Your task to perform on an android device: Check the news Image 0: 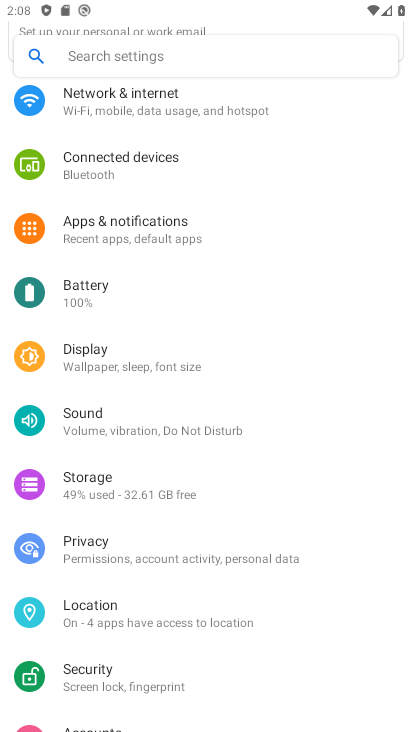
Step 0: press home button
Your task to perform on an android device: Check the news Image 1: 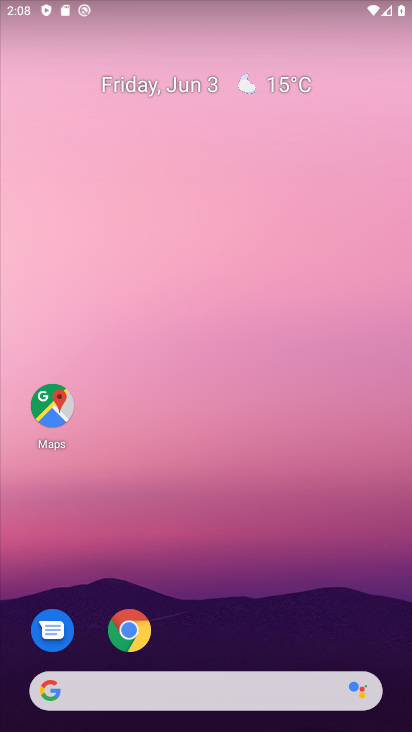
Step 1: drag from (277, 639) to (311, 144)
Your task to perform on an android device: Check the news Image 2: 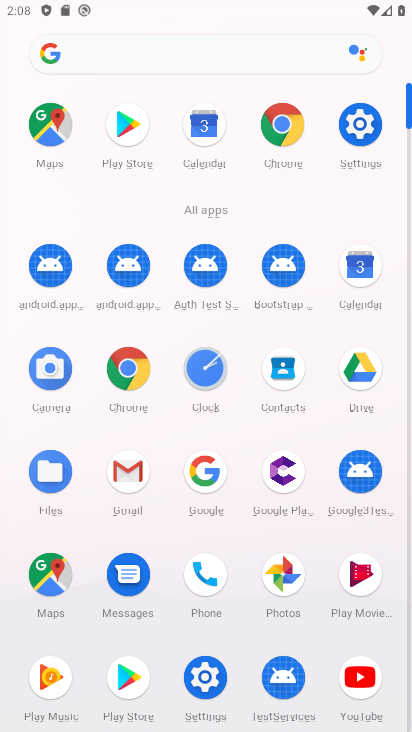
Step 2: click (272, 117)
Your task to perform on an android device: Check the news Image 3: 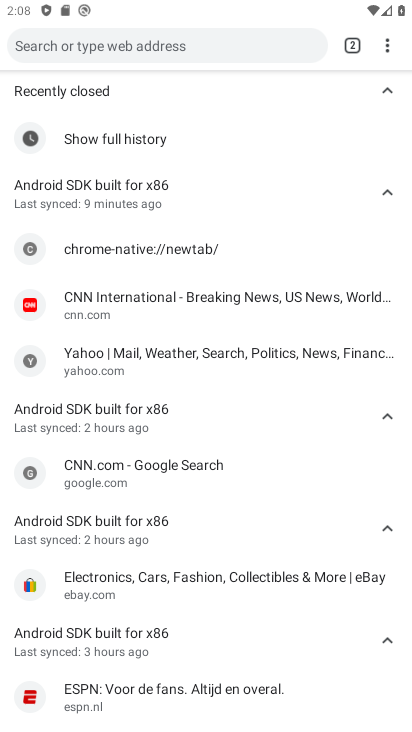
Step 3: click (72, 46)
Your task to perform on an android device: Check the news Image 4: 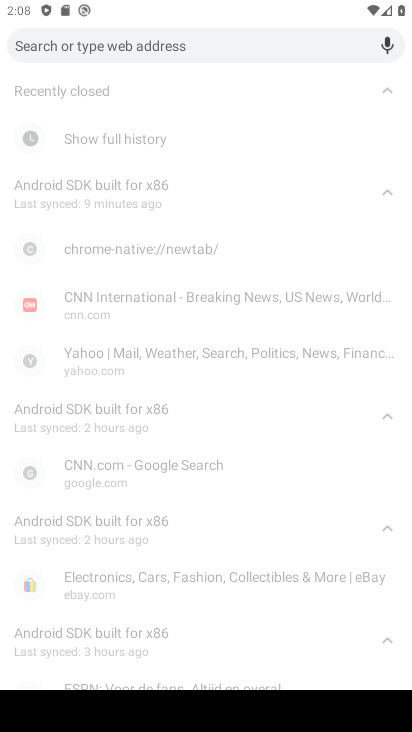
Step 4: type "news"
Your task to perform on an android device: Check the news Image 5: 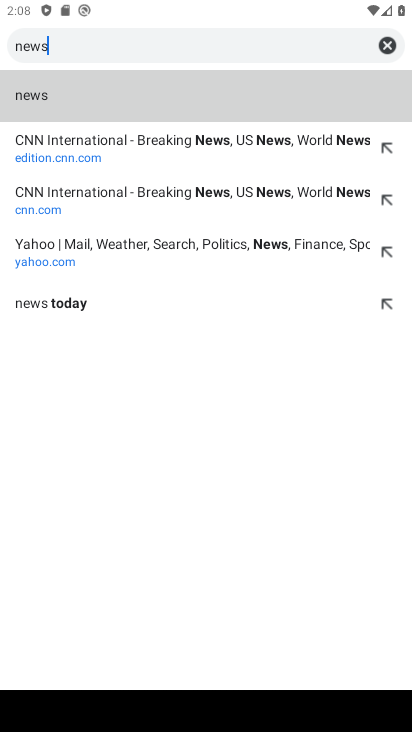
Step 5: type ""
Your task to perform on an android device: Check the news Image 6: 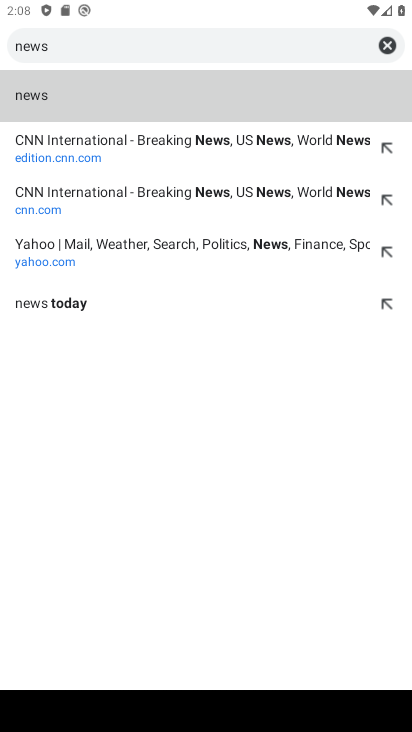
Step 6: click (331, 101)
Your task to perform on an android device: Check the news Image 7: 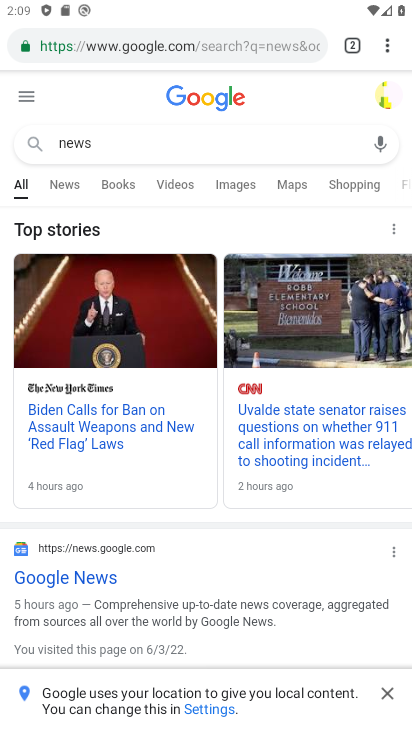
Step 7: task complete